Your task to perform on an android device: Open Android settings Image 0: 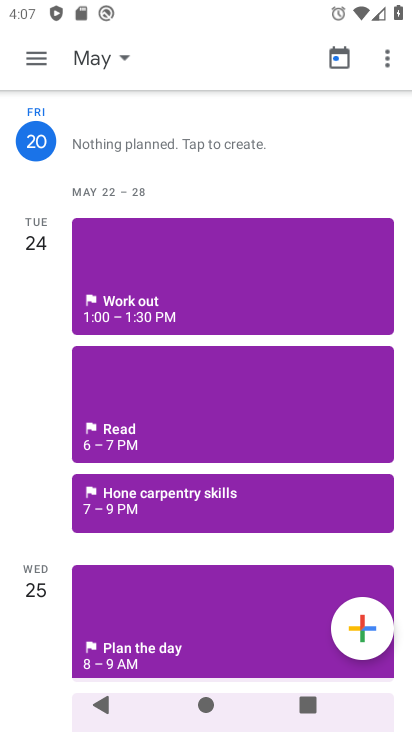
Step 0: press home button
Your task to perform on an android device: Open Android settings Image 1: 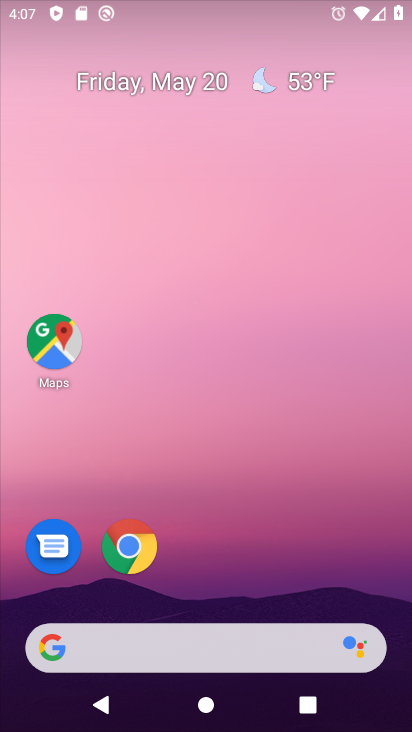
Step 1: drag from (287, 391) to (297, 76)
Your task to perform on an android device: Open Android settings Image 2: 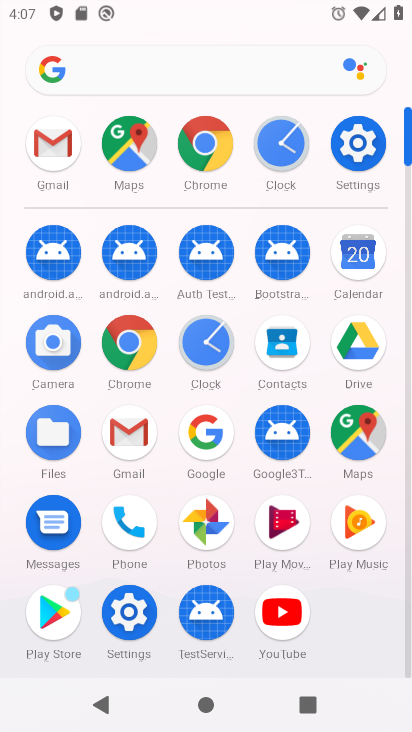
Step 2: click (364, 133)
Your task to perform on an android device: Open Android settings Image 3: 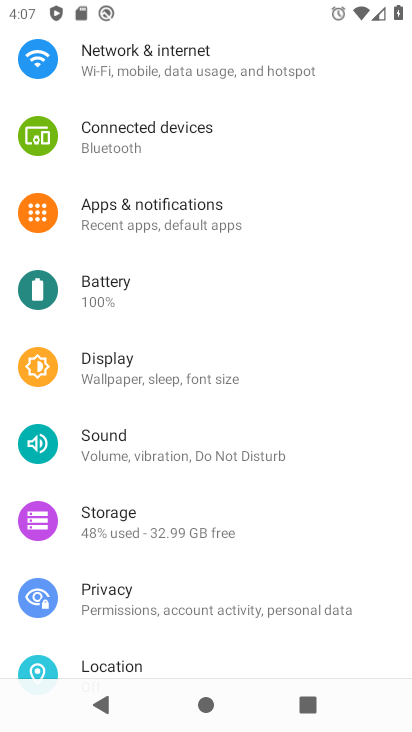
Step 3: task complete